Your task to perform on an android device: What's on my calendar tomorrow? Image 0: 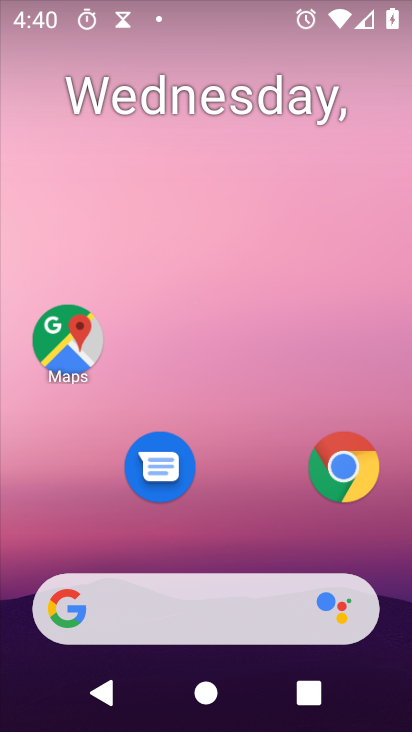
Step 0: drag from (249, 526) to (196, 124)
Your task to perform on an android device: What's on my calendar tomorrow? Image 1: 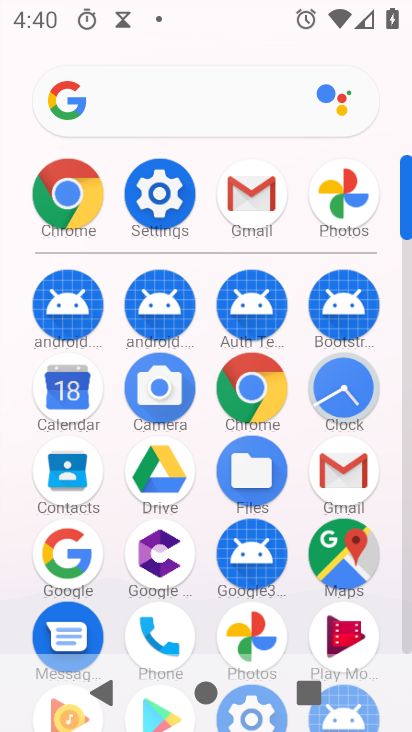
Step 1: click (65, 417)
Your task to perform on an android device: What's on my calendar tomorrow? Image 2: 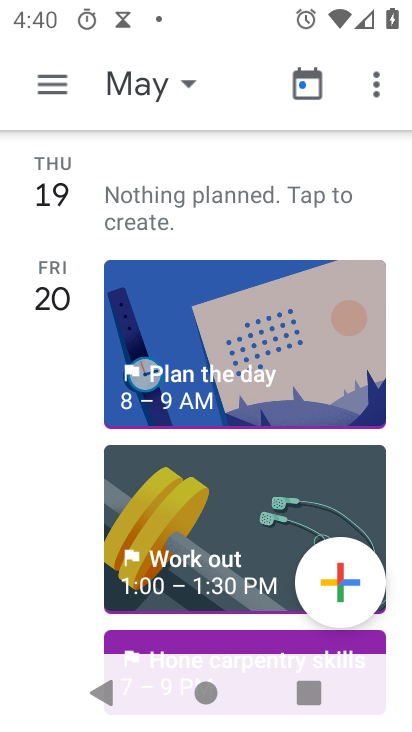
Step 2: click (188, 94)
Your task to perform on an android device: What's on my calendar tomorrow? Image 3: 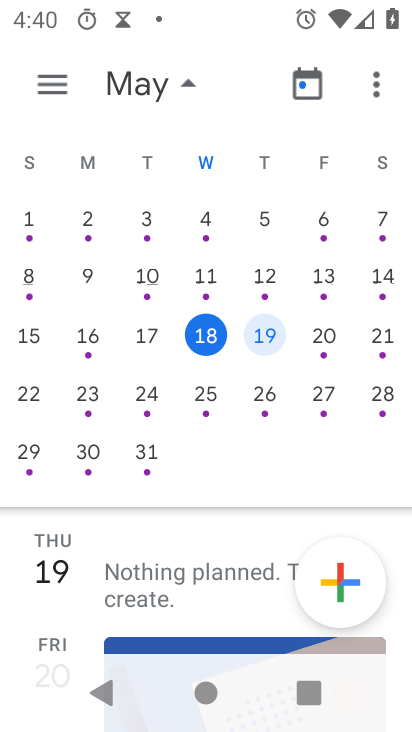
Step 3: click (266, 347)
Your task to perform on an android device: What's on my calendar tomorrow? Image 4: 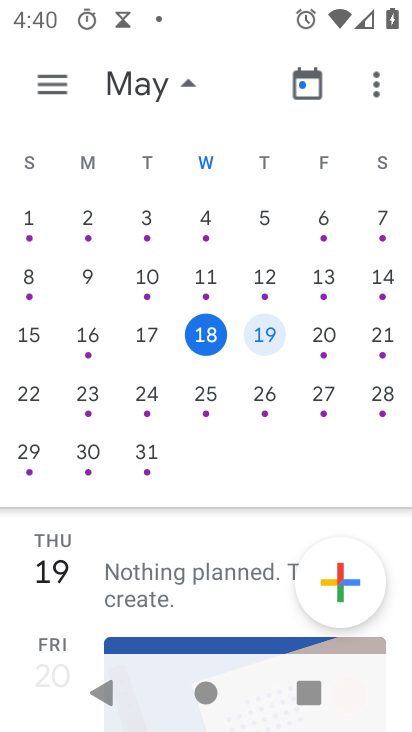
Step 4: click (169, 81)
Your task to perform on an android device: What's on my calendar tomorrow? Image 5: 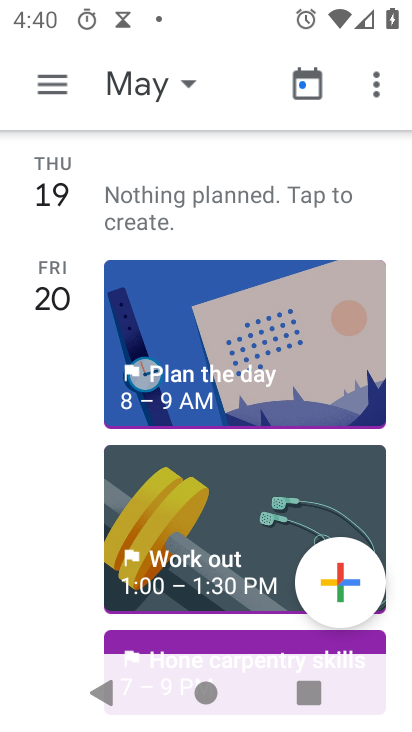
Step 5: task complete